Your task to perform on an android device: change keyboard looks Image 0: 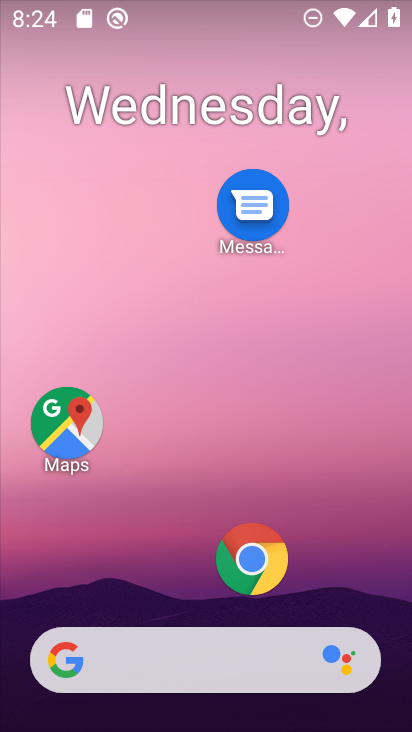
Step 0: drag from (227, 664) to (232, 173)
Your task to perform on an android device: change keyboard looks Image 1: 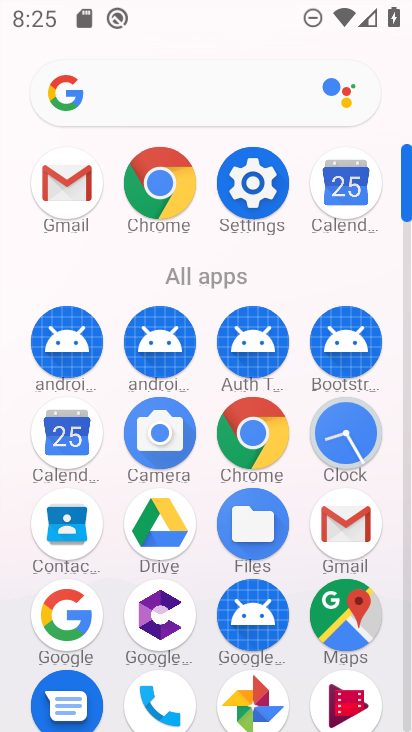
Step 1: click (257, 201)
Your task to perform on an android device: change keyboard looks Image 2: 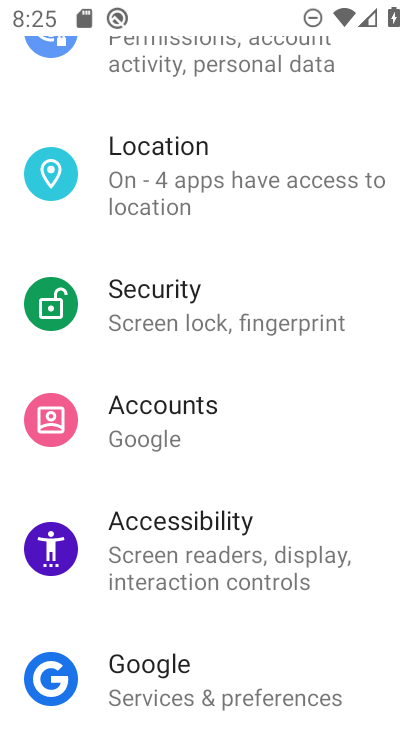
Step 2: drag from (215, 388) to (220, 217)
Your task to perform on an android device: change keyboard looks Image 3: 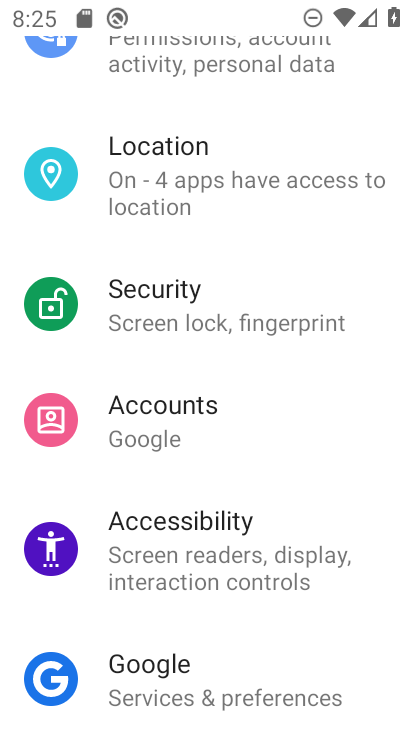
Step 3: drag from (196, 437) to (206, 69)
Your task to perform on an android device: change keyboard looks Image 4: 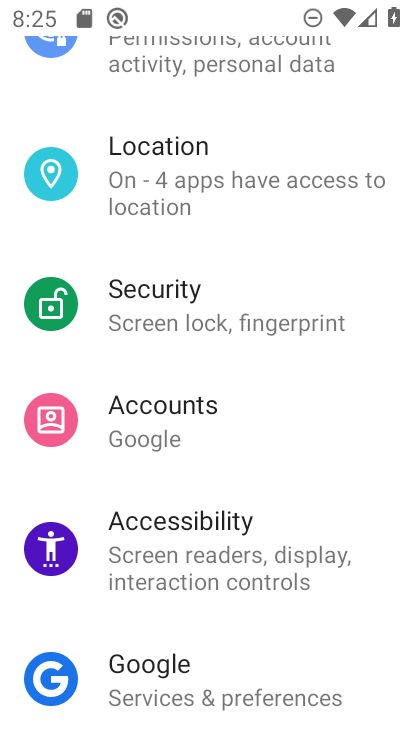
Step 4: drag from (237, 555) to (334, 163)
Your task to perform on an android device: change keyboard looks Image 5: 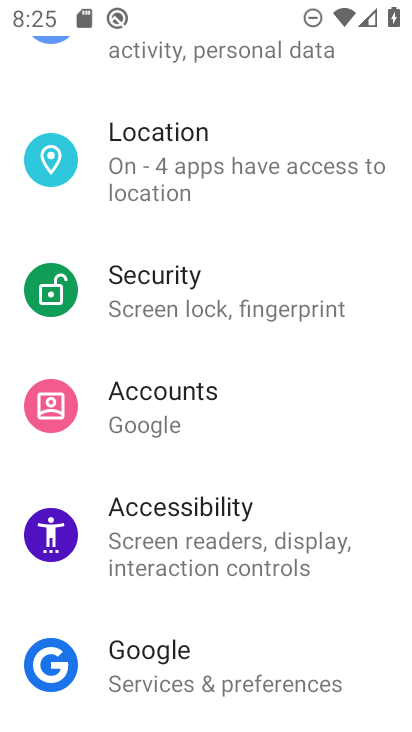
Step 5: drag from (190, 555) to (267, 54)
Your task to perform on an android device: change keyboard looks Image 6: 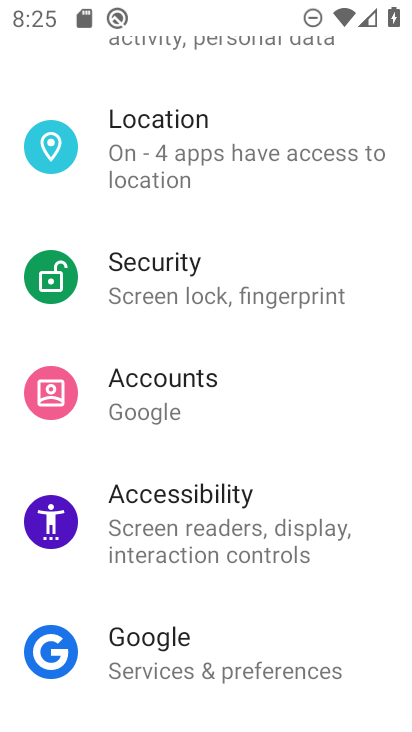
Step 6: drag from (194, 438) to (295, 155)
Your task to perform on an android device: change keyboard looks Image 7: 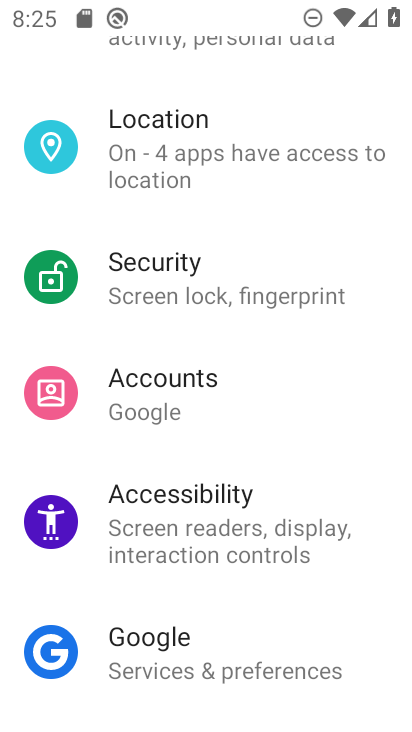
Step 7: drag from (201, 494) to (264, 170)
Your task to perform on an android device: change keyboard looks Image 8: 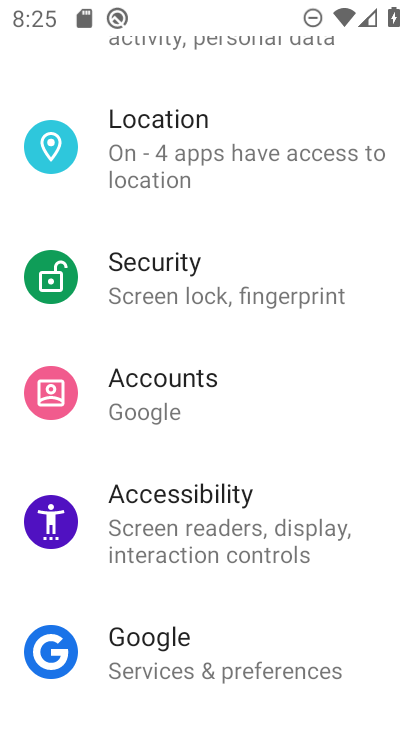
Step 8: drag from (165, 543) to (207, 192)
Your task to perform on an android device: change keyboard looks Image 9: 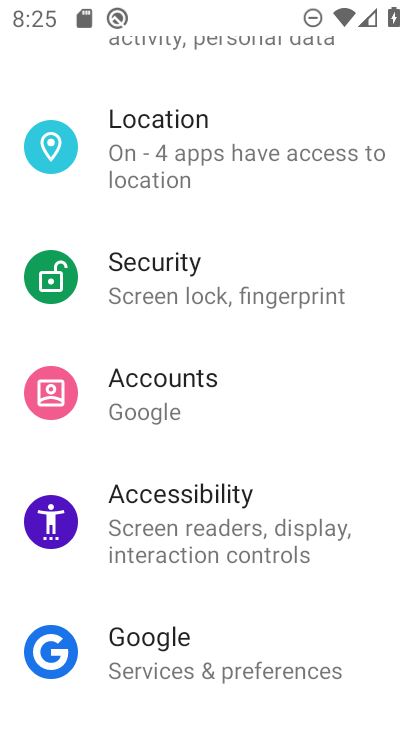
Step 9: drag from (162, 550) to (180, 196)
Your task to perform on an android device: change keyboard looks Image 10: 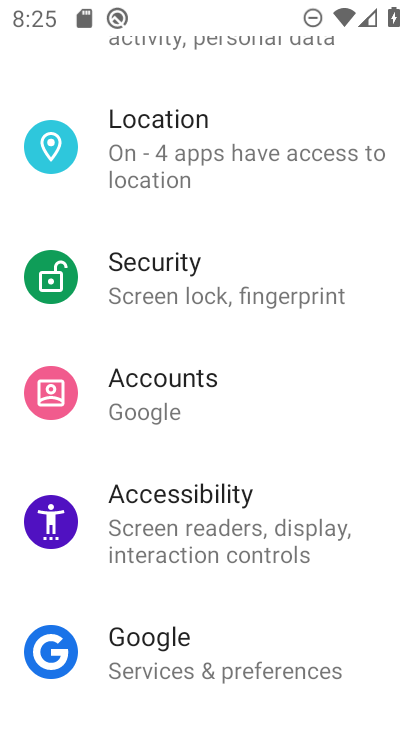
Step 10: drag from (115, 591) to (153, 241)
Your task to perform on an android device: change keyboard looks Image 11: 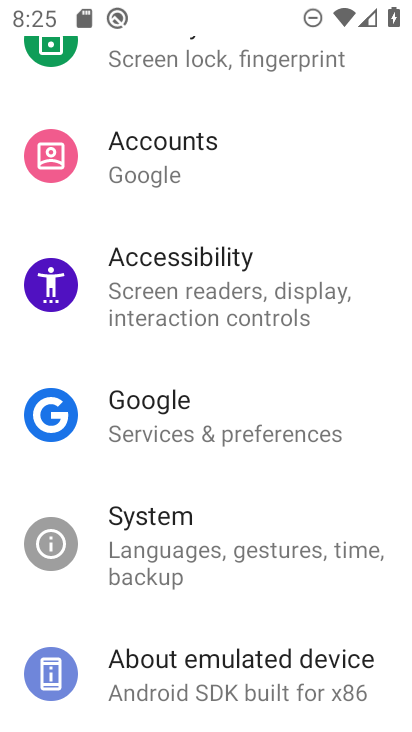
Step 11: click (250, 544)
Your task to perform on an android device: change keyboard looks Image 12: 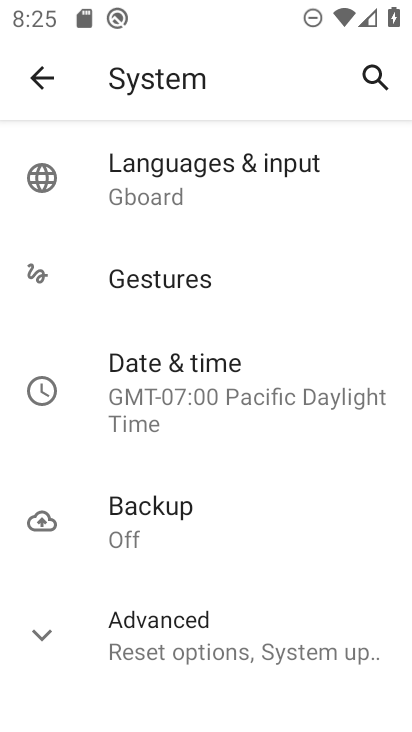
Step 12: click (212, 177)
Your task to perform on an android device: change keyboard looks Image 13: 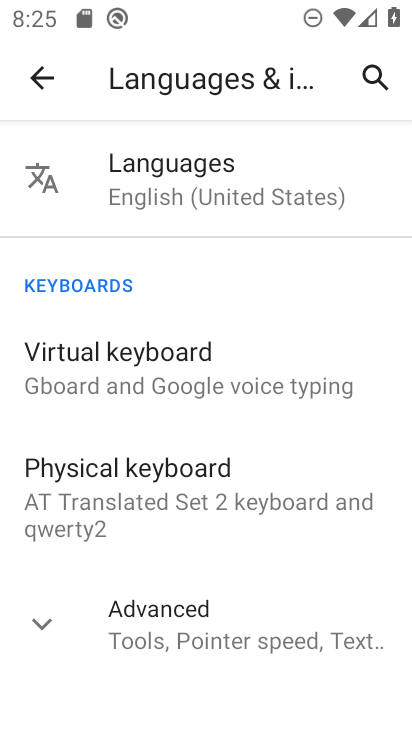
Step 13: click (191, 361)
Your task to perform on an android device: change keyboard looks Image 14: 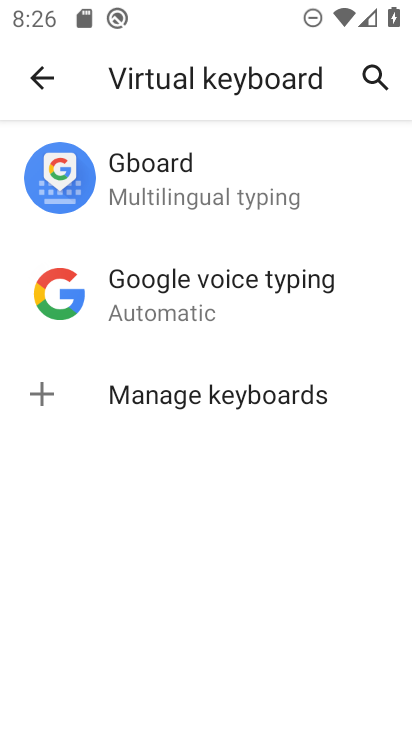
Step 14: click (237, 184)
Your task to perform on an android device: change keyboard looks Image 15: 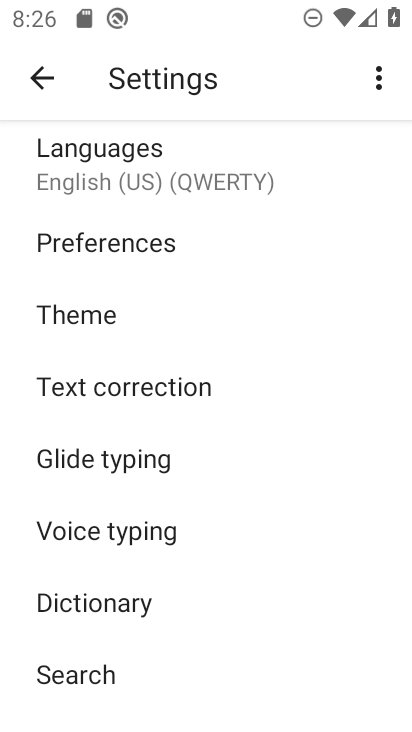
Step 15: click (107, 319)
Your task to perform on an android device: change keyboard looks Image 16: 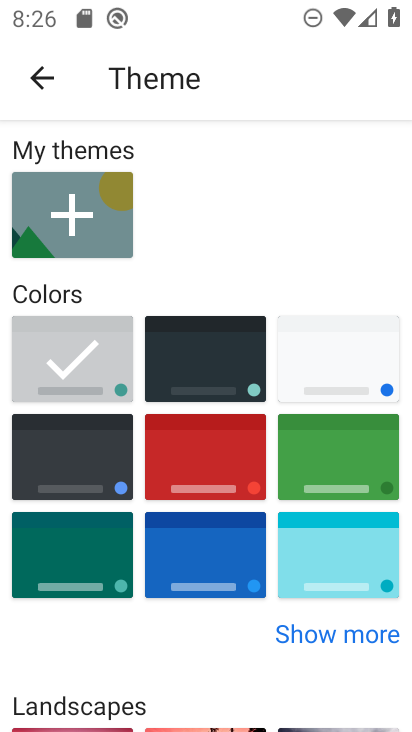
Step 16: click (193, 366)
Your task to perform on an android device: change keyboard looks Image 17: 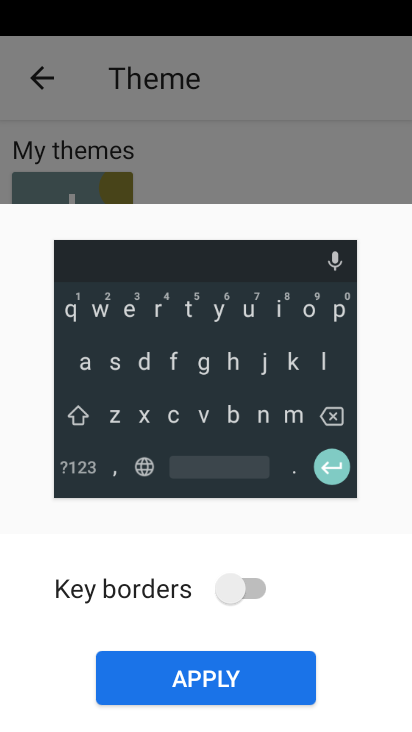
Step 17: click (206, 685)
Your task to perform on an android device: change keyboard looks Image 18: 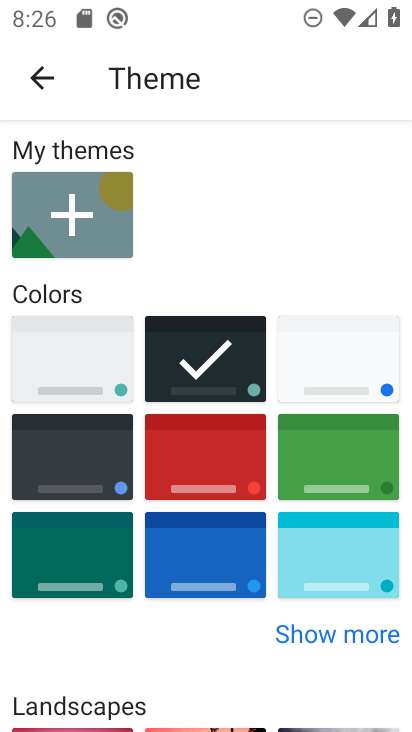
Step 18: task complete